Your task to perform on an android device: Open settings on Google Maps Image 0: 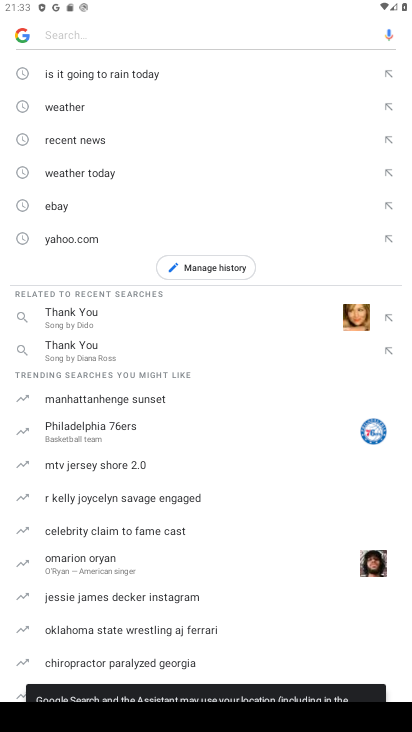
Step 0: press home button
Your task to perform on an android device: Open settings on Google Maps Image 1: 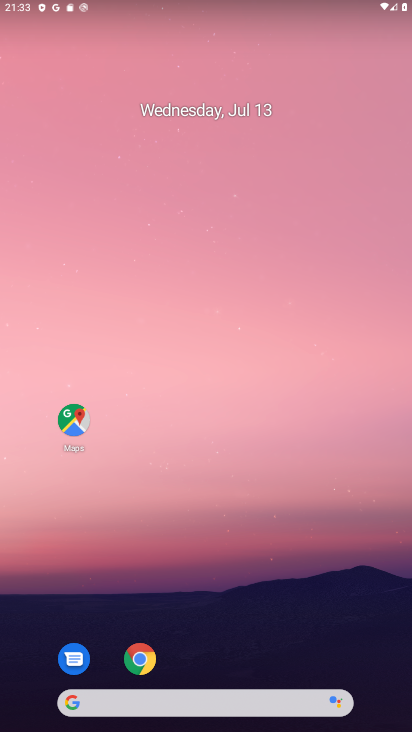
Step 1: click (69, 418)
Your task to perform on an android device: Open settings on Google Maps Image 2: 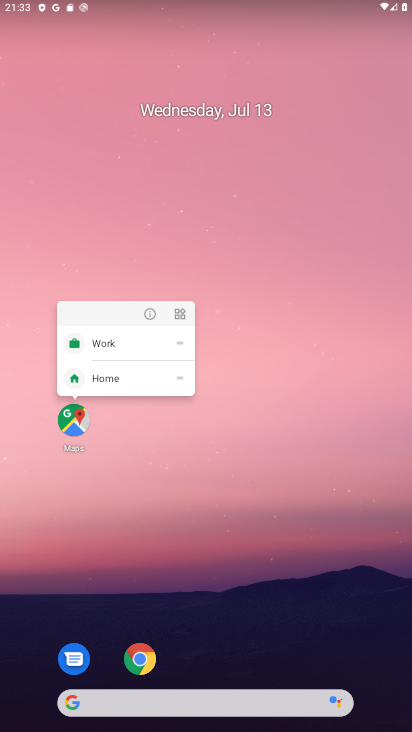
Step 2: click (69, 418)
Your task to perform on an android device: Open settings on Google Maps Image 3: 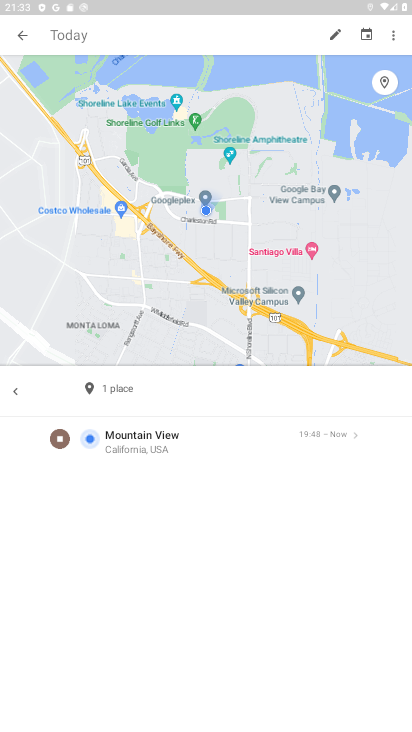
Step 3: click (18, 30)
Your task to perform on an android device: Open settings on Google Maps Image 4: 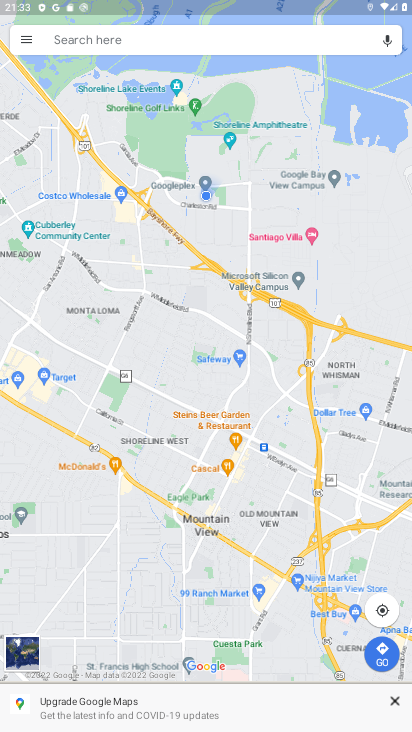
Step 4: click (30, 40)
Your task to perform on an android device: Open settings on Google Maps Image 5: 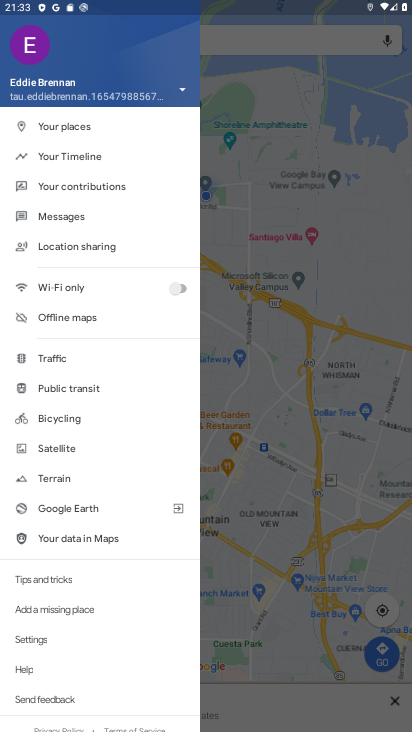
Step 5: click (38, 641)
Your task to perform on an android device: Open settings on Google Maps Image 6: 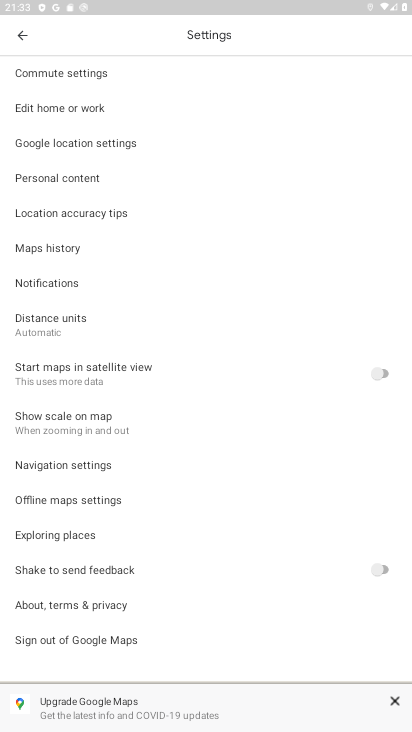
Step 6: task complete